Your task to perform on an android device: Open settings Image 0: 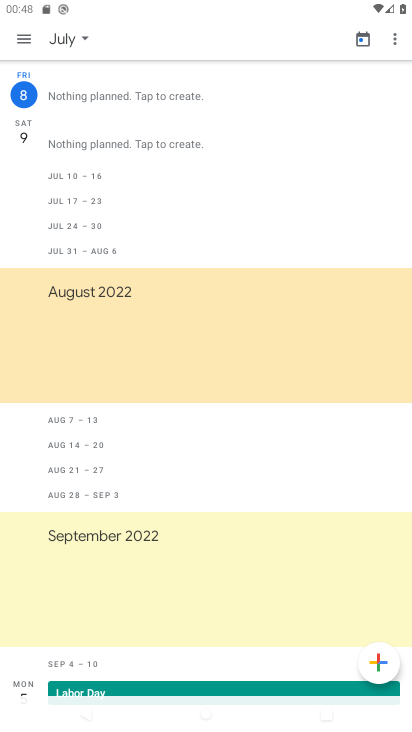
Step 0: press home button
Your task to perform on an android device: Open settings Image 1: 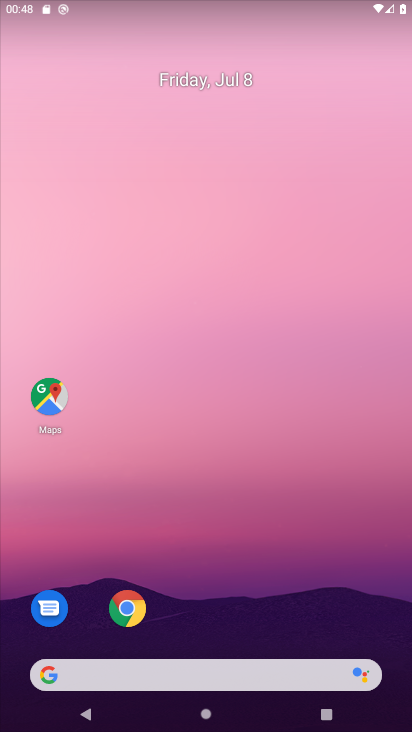
Step 1: drag from (210, 632) to (256, 170)
Your task to perform on an android device: Open settings Image 2: 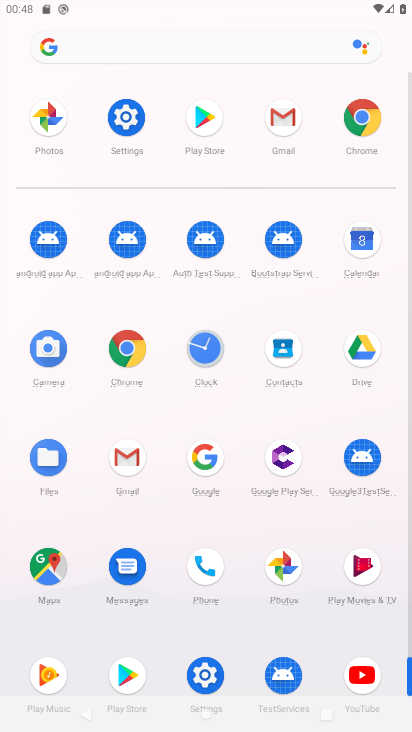
Step 2: click (121, 103)
Your task to perform on an android device: Open settings Image 3: 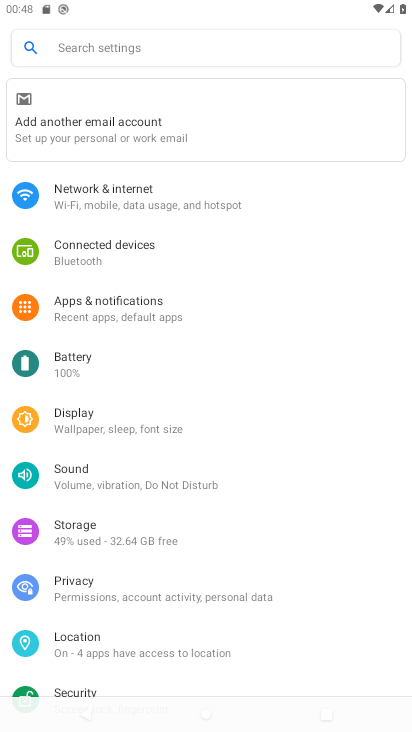
Step 3: task complete